Your task to perform on an android device: Go to Maps Image 0: 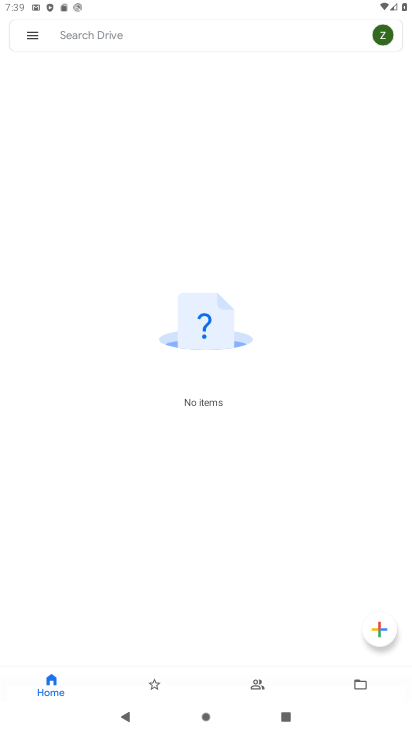
Step 0: press home button
Your task to perform on an android device: Go to Maps Image 1: 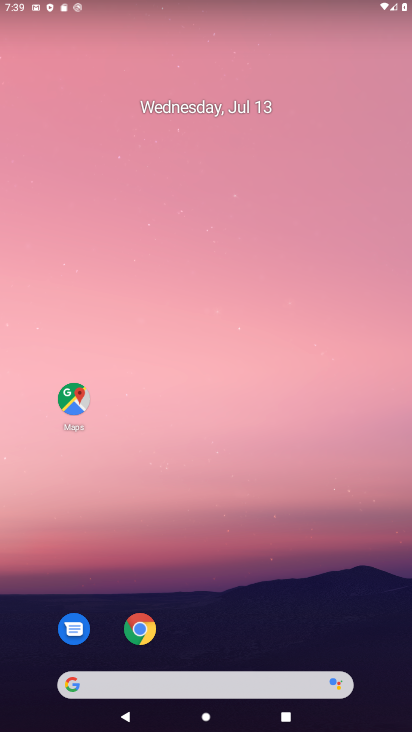
Step 1: click (58, 401)
Your task to perform on an android device: Go to Maps Image 2: 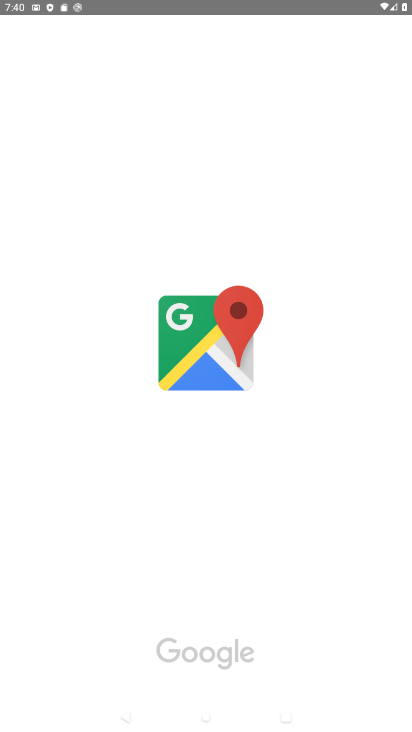
Step 2: task complete